Your task to perform on an android device: refresh tabs in the chrome app Image 0: 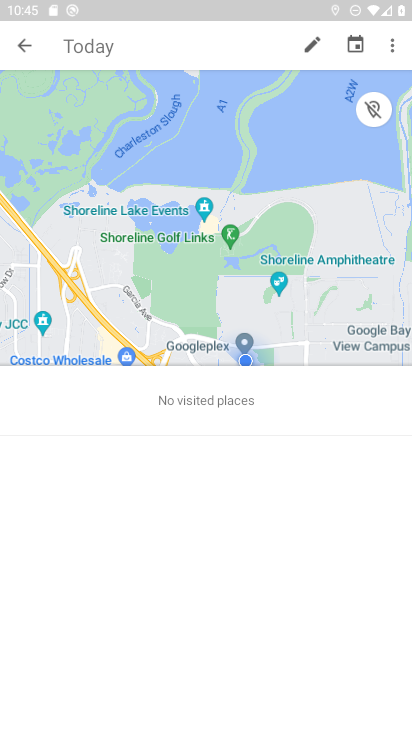
Step 0: press home button
Your task to perform on an android device: refresh tabs in the chrome app Image 1: 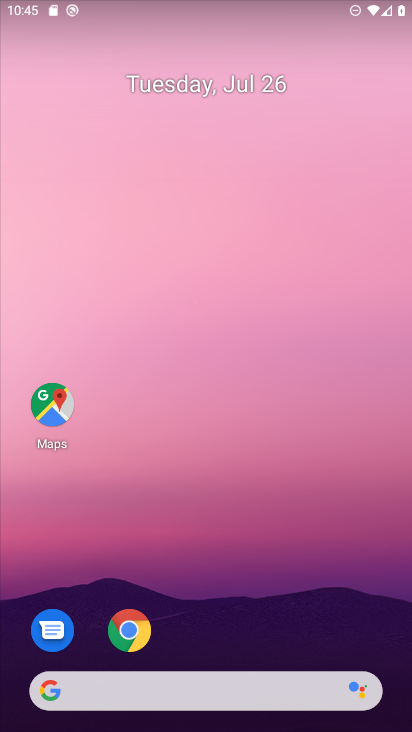
Step 1: click (138, 627)
Your task to perform on an android device: refresh tabs in the chrome app Image 2: 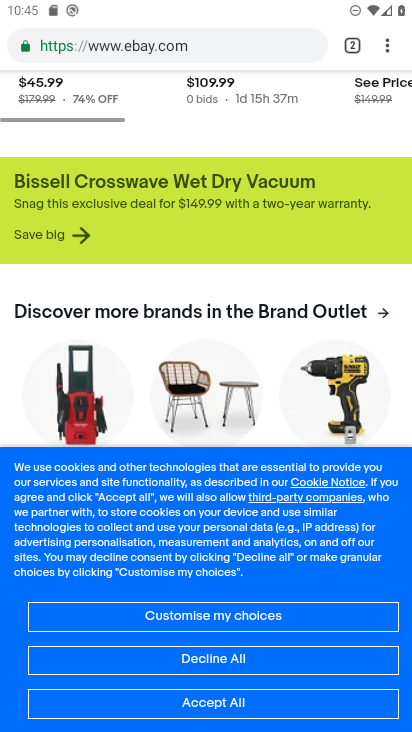
Step 2: click (386, 50)
Your task to perform on an android device: refresh tabs in the chrome app Image 3: 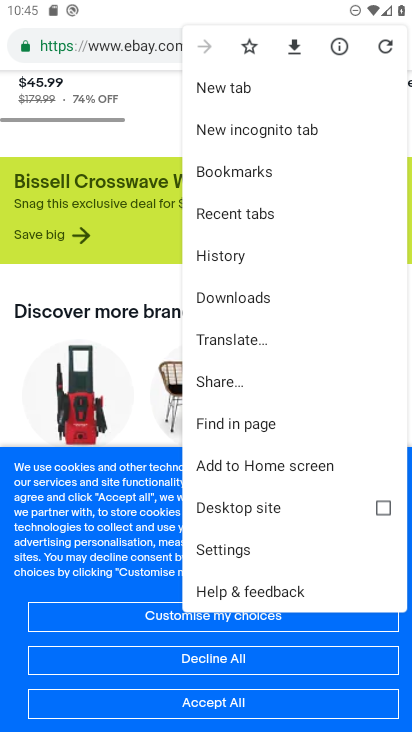
Step 3: click (386, 49)
Your task to perform on an android device: refresh tabs in the chrome app Image 4: 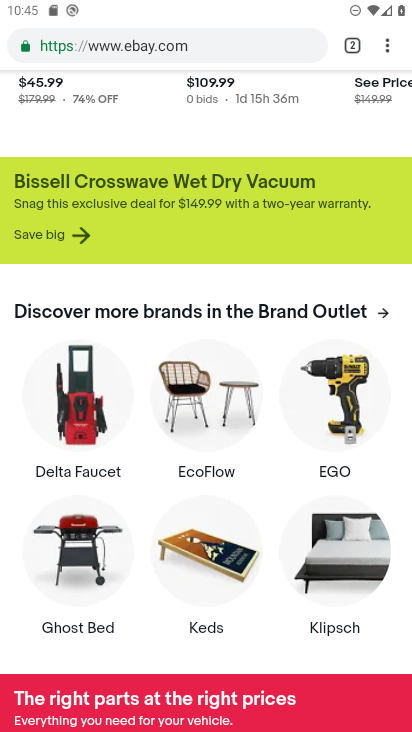
Step 4: task complete